Your task to perform on an android device: Open Youtube and go to "Your channel" Image 0: 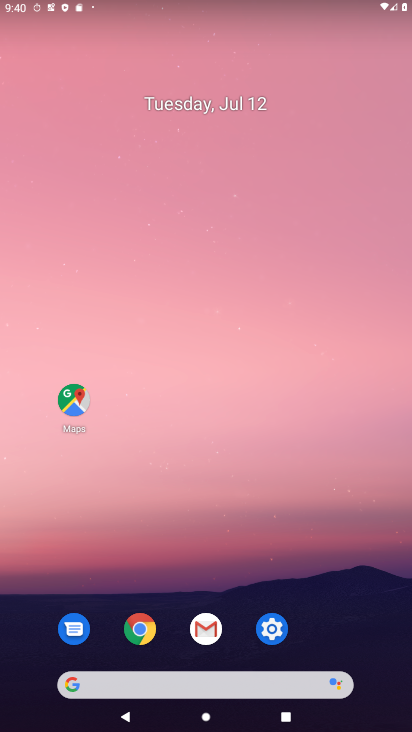
Step 0: drag from (269, 709) to (329, 82)
Your task to perform on an android device: Open Youtube and go to "Your channel" Image 1: 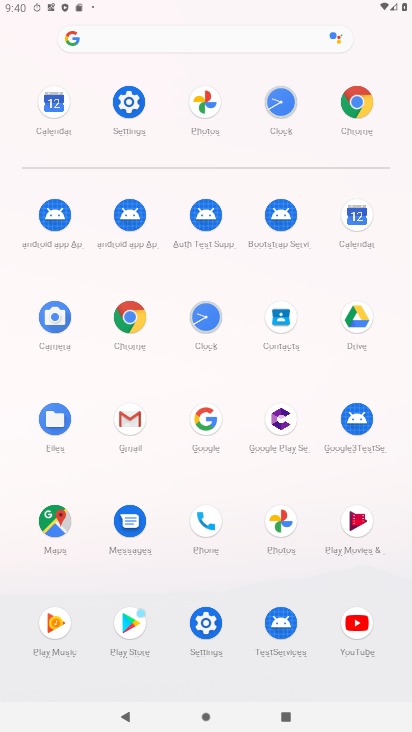
Step 1: click (359, 613)
Your task to perform on an android device: Open Youtube and go to "Your channel" Image 2: 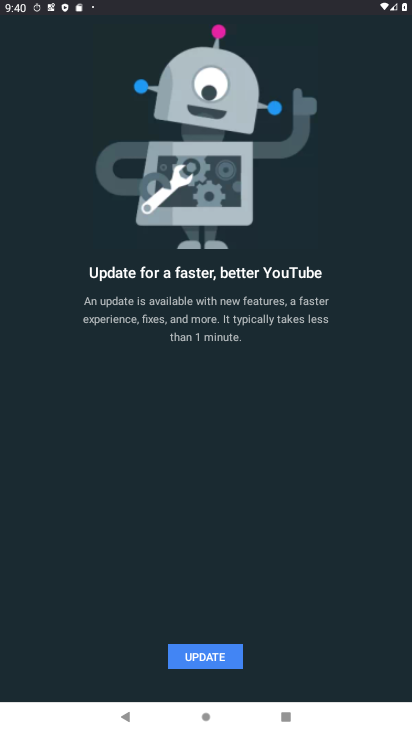
Step 2: click (182, 649)
Your task to perform on an android device: Open Youtube and go to "Your channel" Image 3: 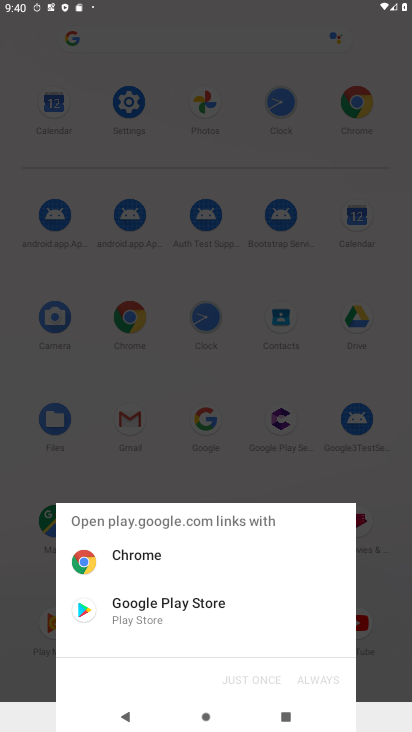
Step 3: click (158, 628)
Your task to perform on an android device: Open Youtube and go to "Your channel" Image 4: 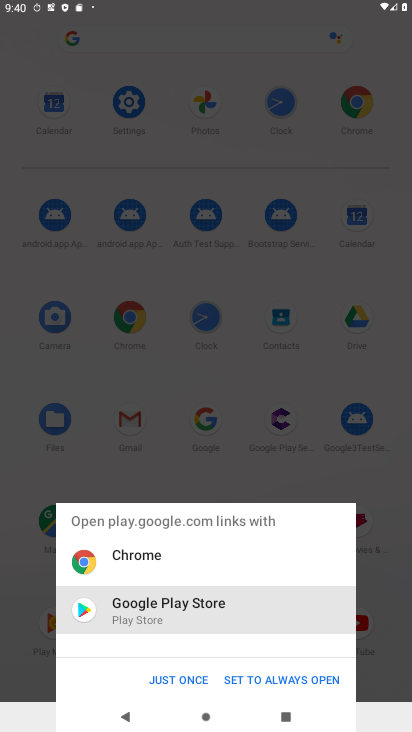
Step 4: click (185, 674)
Your task to perform on an android device: Open Youtube and go to "Your channel" Image 5: 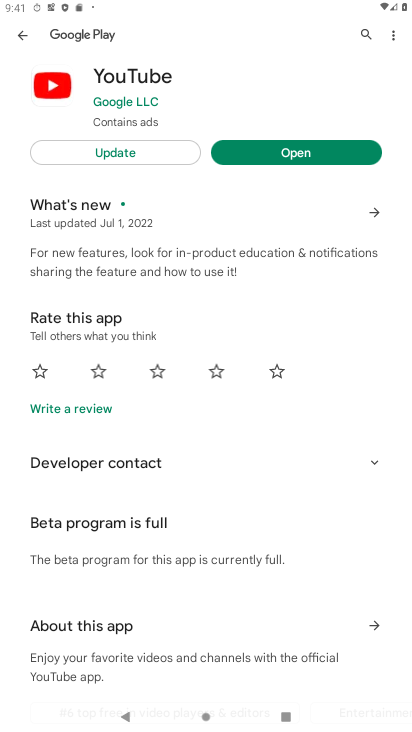
Step 5: click (93, 153)
Your task to perform on an android device: Open Youtube and go to "Your channel" Image 6: 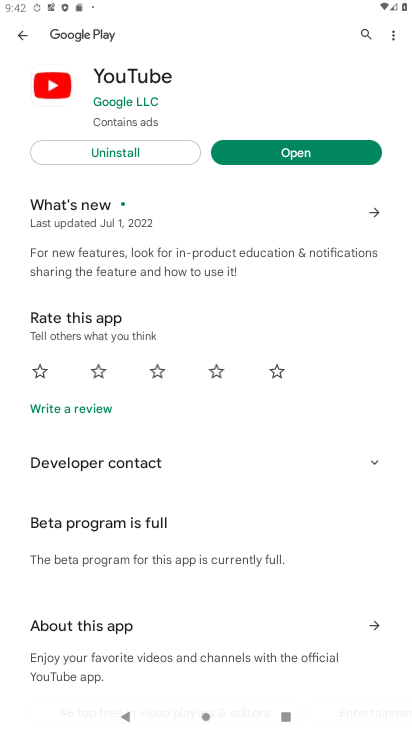
Step 6: task complete